Your task to perform on an android device: change keyboard looks Image 0: 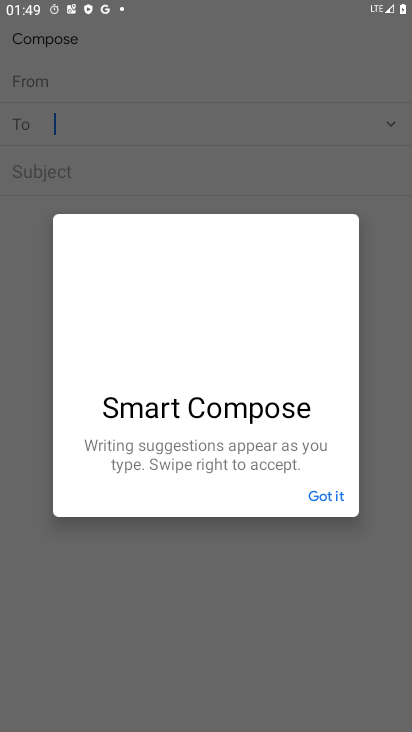
Step 0: drag from (253, 637) to (259, 478)
Your task to perform on an android device: change keyboard looks Image 1: 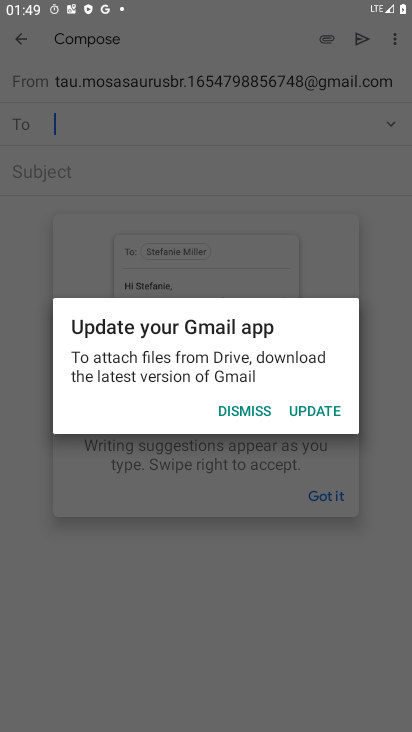
Step 1: press home button
Your task to perform on an android device: change keyboard looks Image 2: 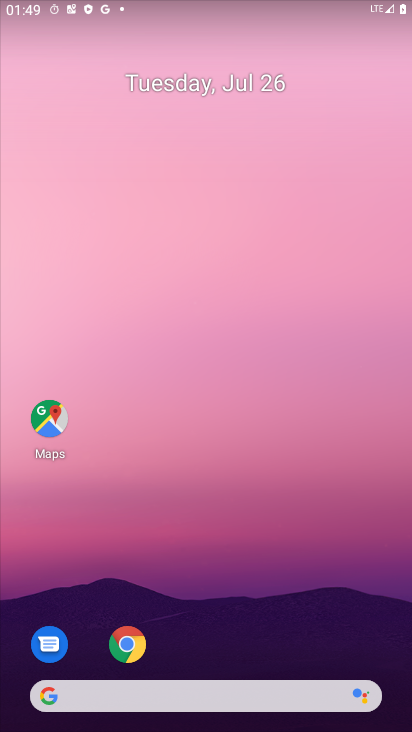
Step 2: drag from (234, 639) to (235, 60)
Your task to perform on an android device: change keyboard looks Image 3: 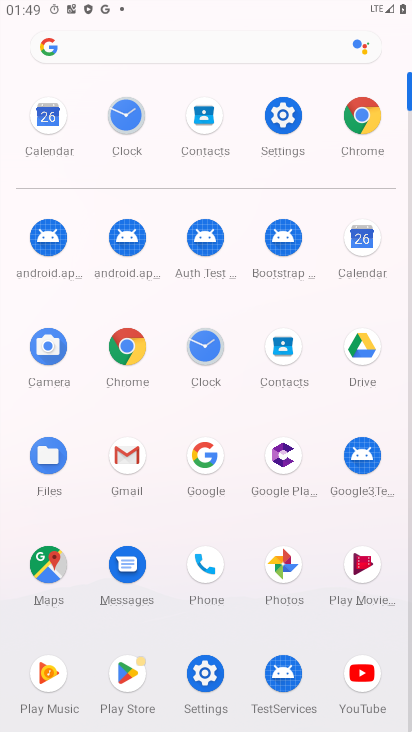
Step 3: click (286, 129)
Your task to perform on an android device: change keyboard looks Image 4: 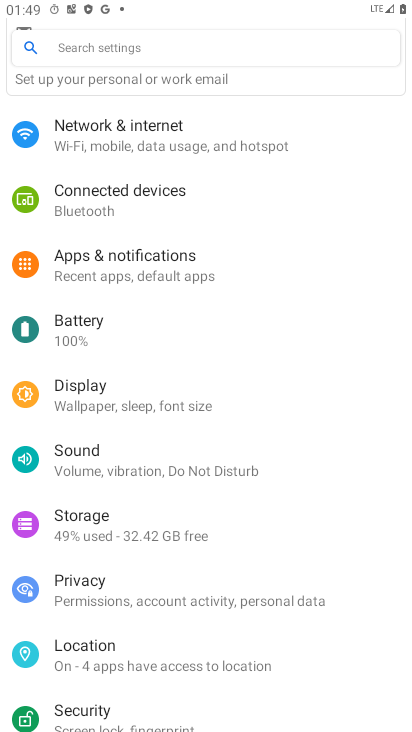
Step 4: drag from (269, 680) to (276, 274)
Your task to perform on an android device: change keyboard looks Image 5: 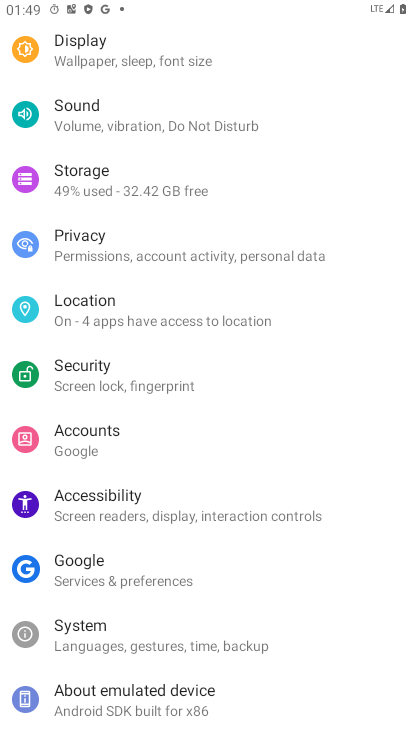
Step 5: click (85, 649)
Your task to perform on an android device: change keyboard looks Image 6: 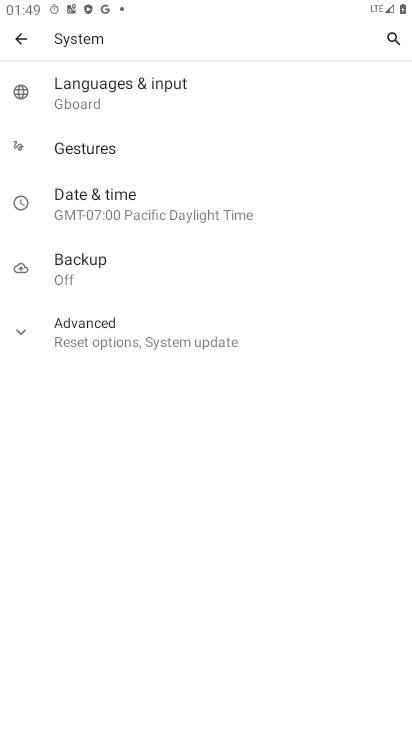
Step 6: click (100, 84)
Your task to perform on an android device: change keyboard looks Image 7: 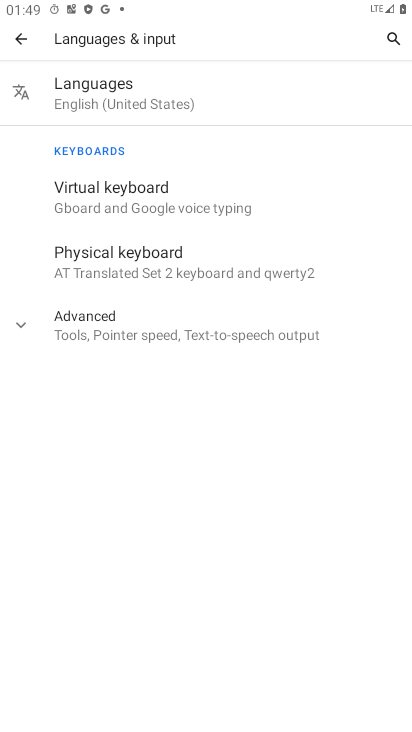
Step 7: click (96, 195)
Your task to perform on an android device: change keyboard looks Image 8: 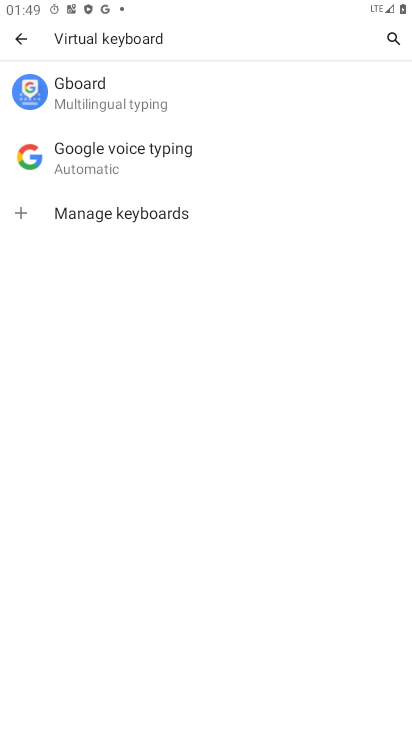
Step 8: click (89, 94)
Your task to perform on an android device: change keyboard looks Image 9: 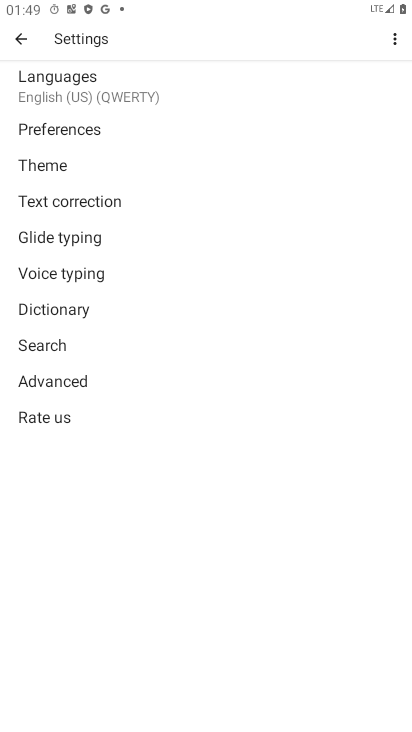
Step 9: click (58, 160)
Your task to perform on an android device: change keyboard looks Image 10: 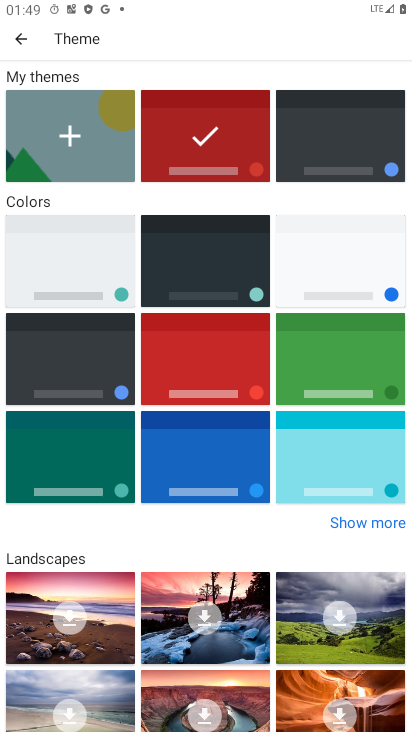
Step 10: click (196, 280)
Your task to perform on an android device: change keyboard looks Image 11: 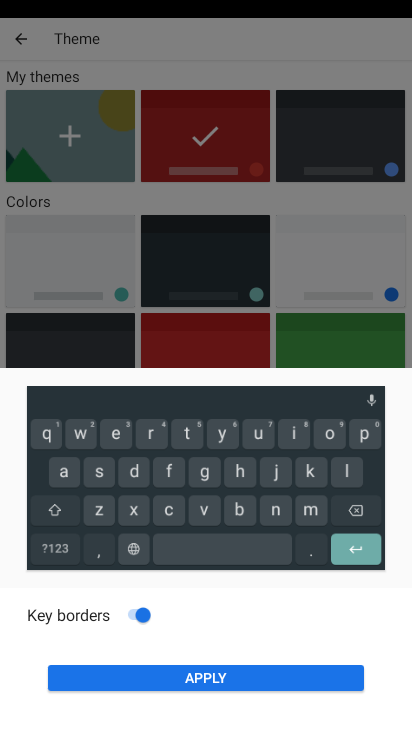
Step 11: click (141, 682)
Your task to perform on an android device: change keyboard looks Image 12: 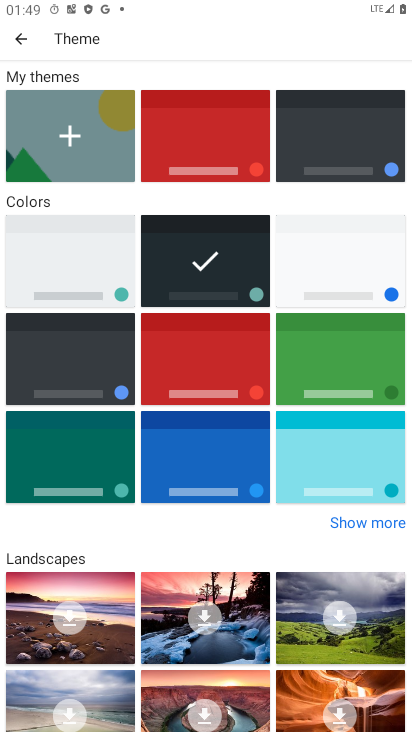
Step 12: task complete